Your task to perform on an android device: turn pop-ups on in chrome Image 0: 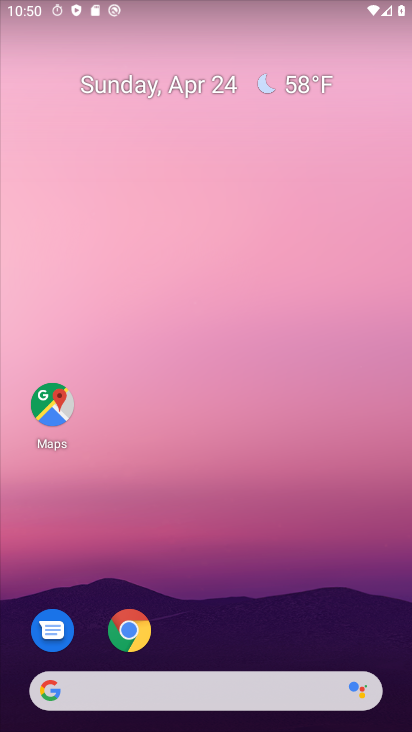
Step 0: drag from (279, 459) to (411, 115)
Your task to perform on an android device: turn pop-ups on in chrome Image 1: 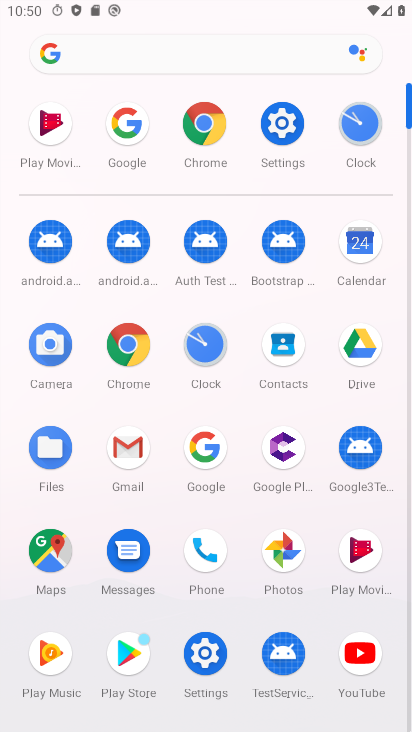
Step 1: click (118, 334)
Your task to perform on an android device: turn pop-ups on in chrome Image 2: 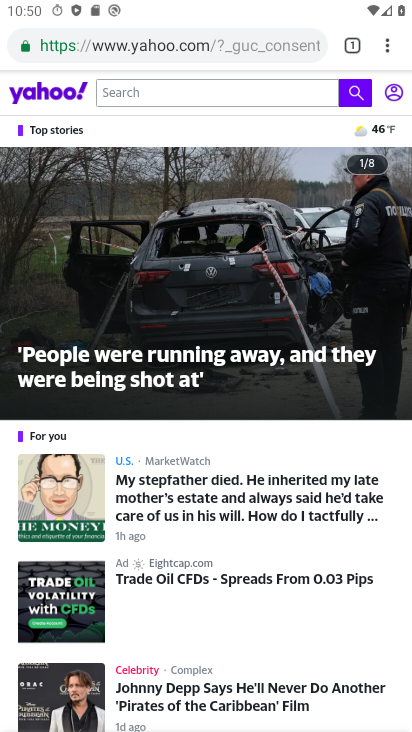
Step 2: click (387, 43)
Your task to perform on an android device: turn pop-ups on in chrome Image 3: 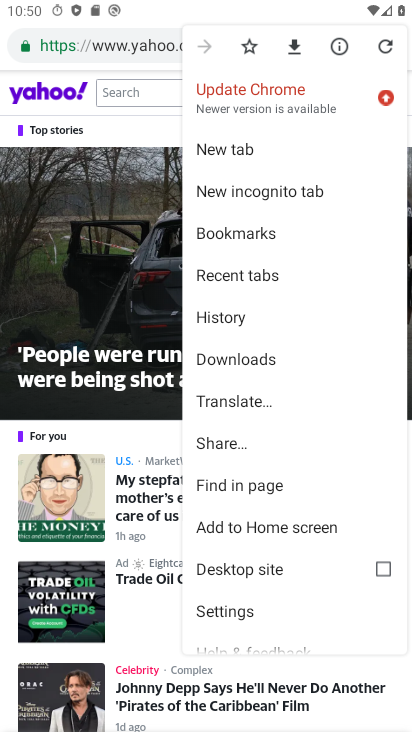
Step 3: click (268, 614)
Your task to perform on an android device: turn pop-ups on in chrome Image 4: 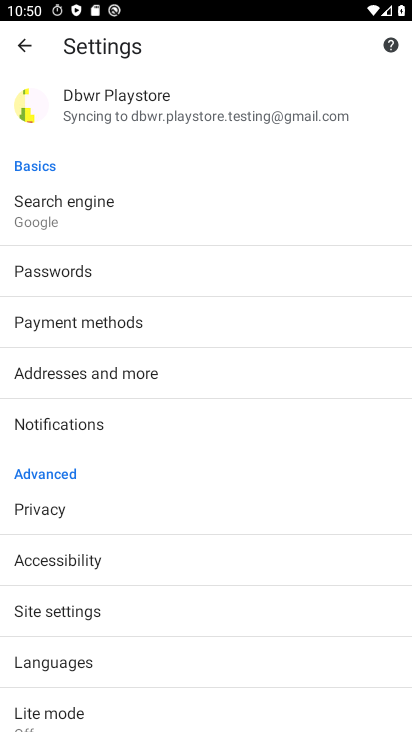
Step 4: drag from (199, 551) to (204, 341)
Your task to perform on an android device: turn pop-ups on in chrome Image 5: 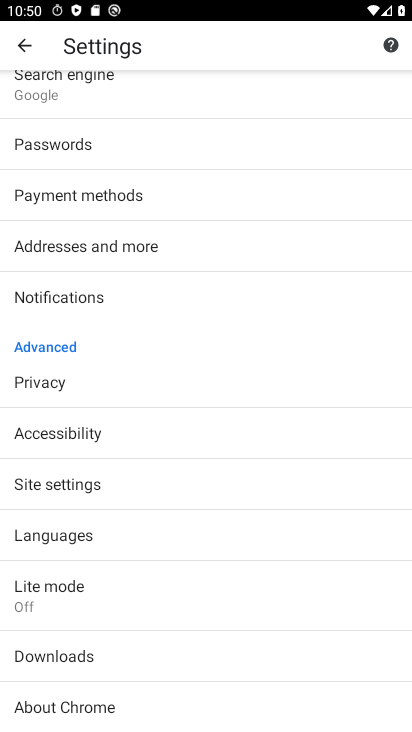
Step 5: click (150, 487)
Your task to perform on an android device: turn pop-ups on in chrome Image 6: 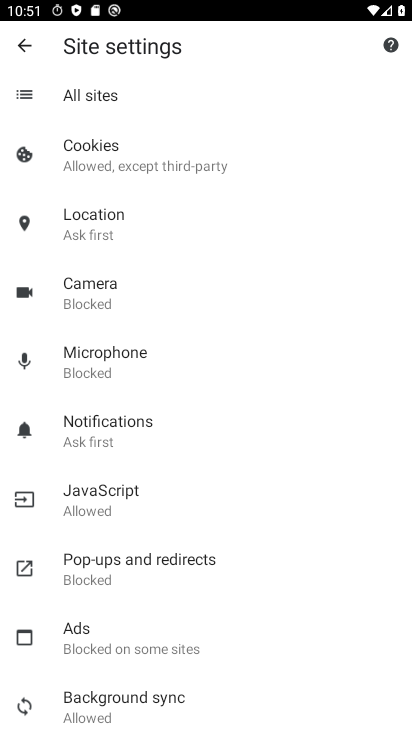
Step 6: drag from (177, 631) to (223, 410)
Your task to perform on an android device: turn pop-ups on in chrome Image 7: 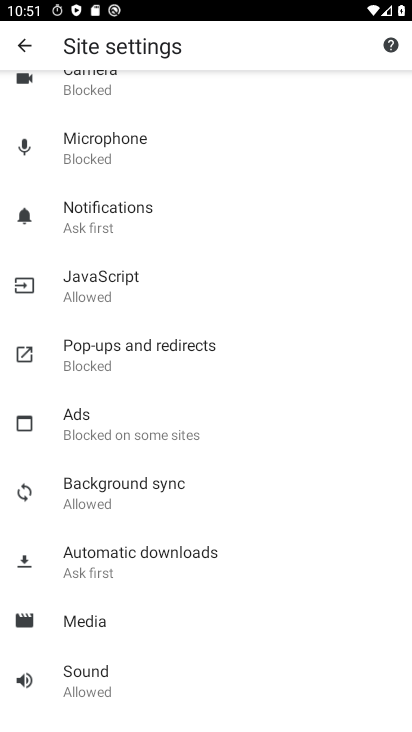
Step 7: click (179, 359)
Your task to perform on an android device: turn pop-ups on in chrome Image 8: 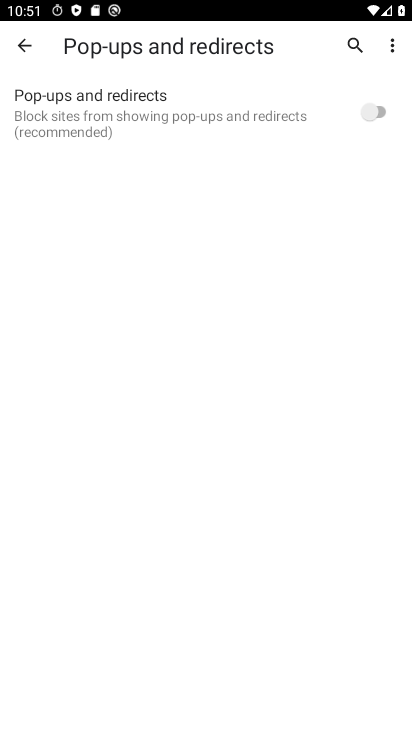
Step 8: click (367, 129)
Your task to perform on an android device: turn pop-ups on in chrome Image 9: 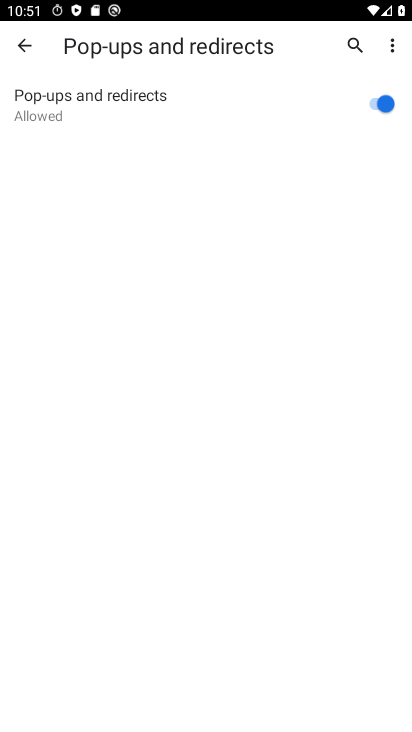
Step 9: task complete